Your task to perform on an android device: change the clock display to analog Image 0: 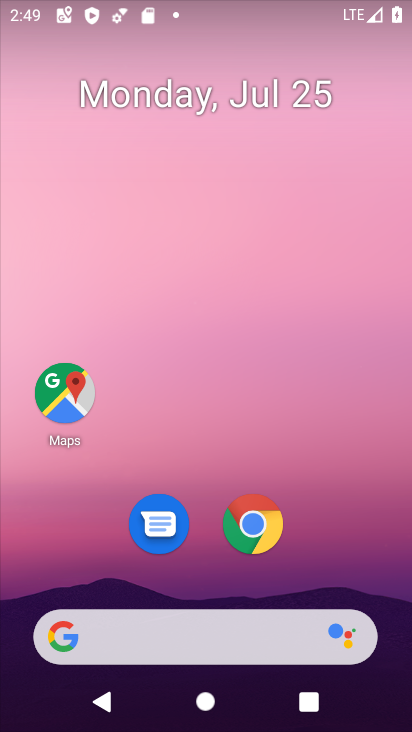
Step 0: drag from (333, 552) to (322, 21)
Your task to perform on an android device: change the clock display to analog Image 1: 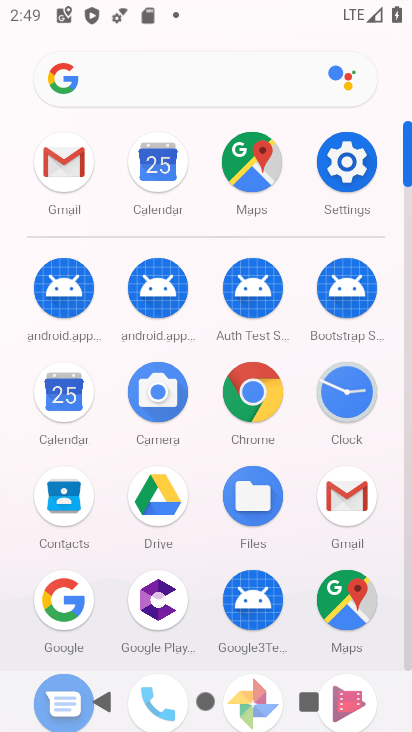
Step 1: click (350, 397)
Your task to perform on an android device: change the clock display to analog Image 2: 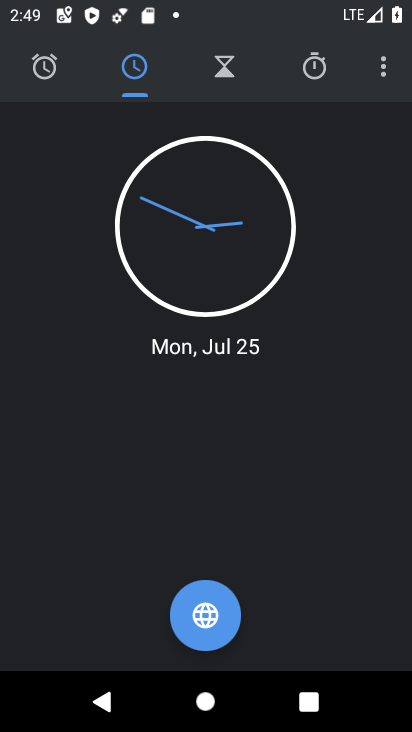
Step 2: task complete